Your task to perform on an android device: Do I have any events this weekend? Image 0: 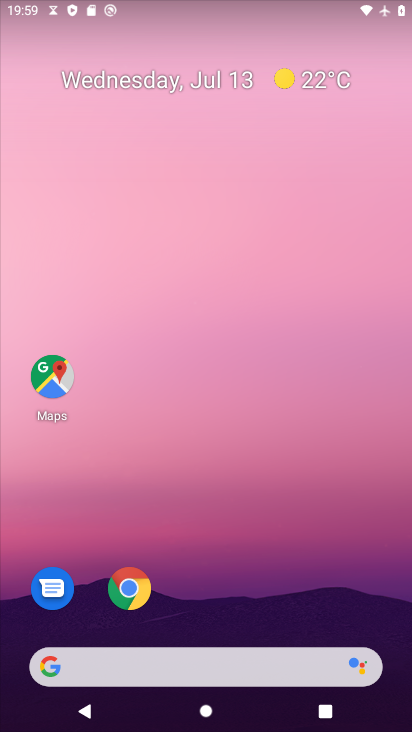
Step 0: drag from (235, 602) to (218, 83)
Your task to perform on an android device: Do I have any events this weekend? Image 1: 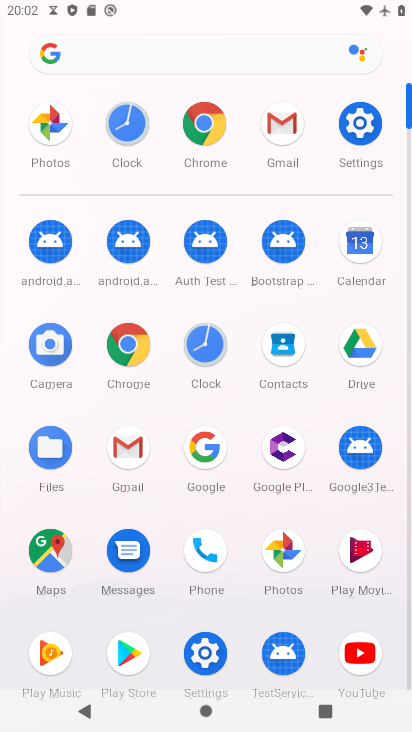
Step 1: click (375, 233)
Your task to perform on an android device: Do I have any events this weekend? Image 2: 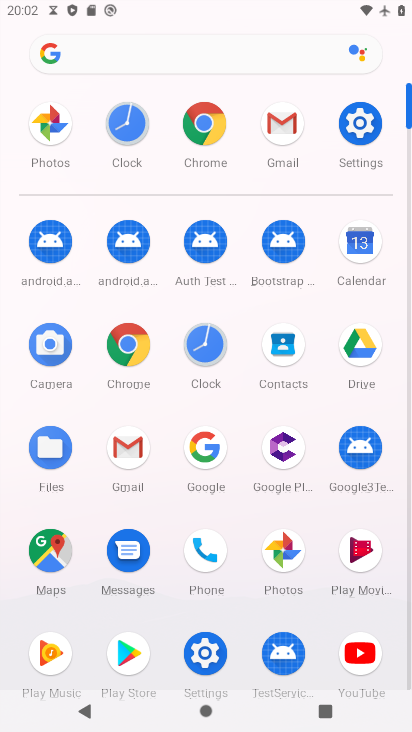
Step 2: click (354, 230)
Your task to perform on an android device: Do I have any events this weekend? Image 3: 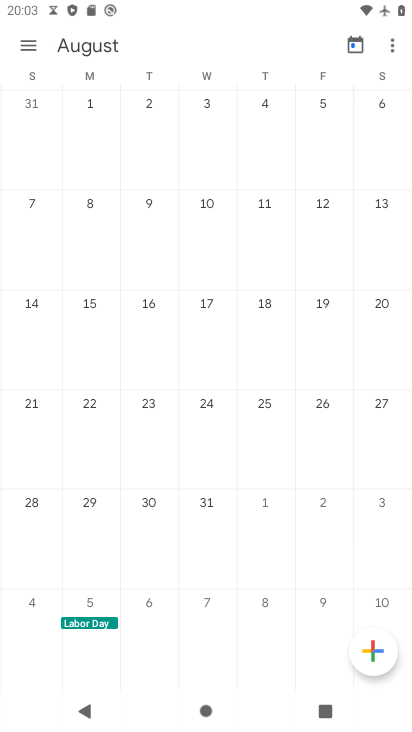
Step 3: drag from (41, 282) to (295, 315)
Your task to perform on an android device: Do I have any events this weekend? Image 4: 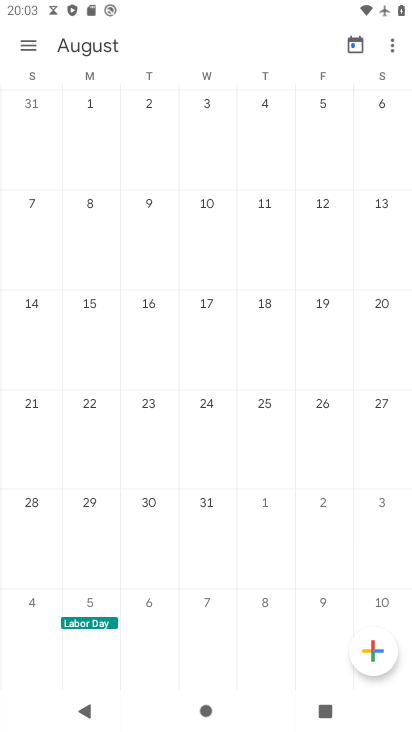
Step 4: drag from (7, 350) to (341, 464)
Your task to perform on an android device: Do I have any events this weekend? Image 5: 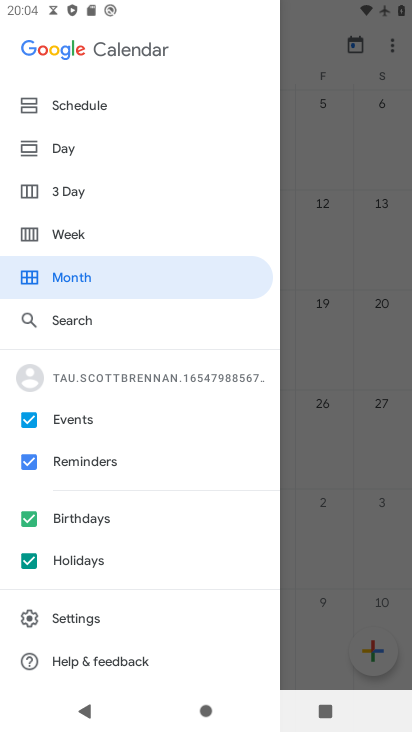
Step 5: click (318, 377)
Your task to perform on an android device: Do I have any events this weekend? Image 6: 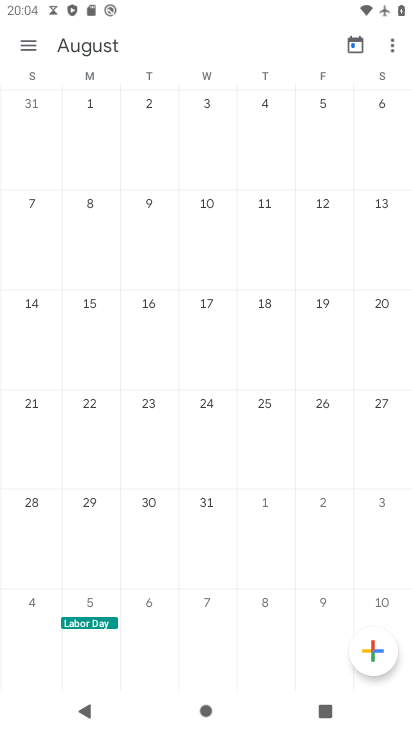
Step 6: drag from (96, 265) to (395, 170)
Your task to perform on an android device: Do I have any events this weekend? Image 7: 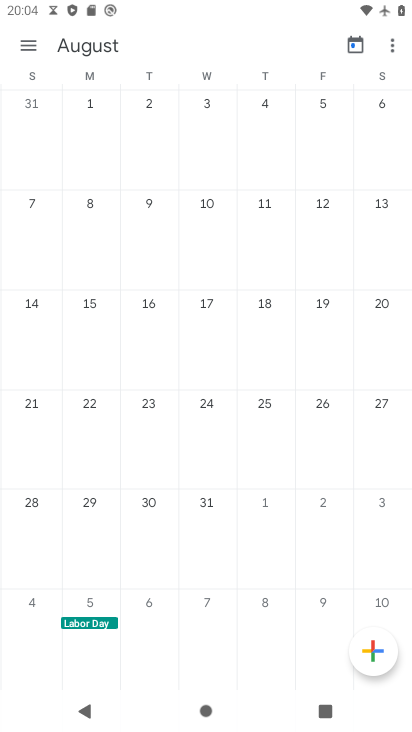
Step 7: drag from (56, 422) to (387, 712)
Your task to perform on an android device: Do I have any events this weekend? Image 8: 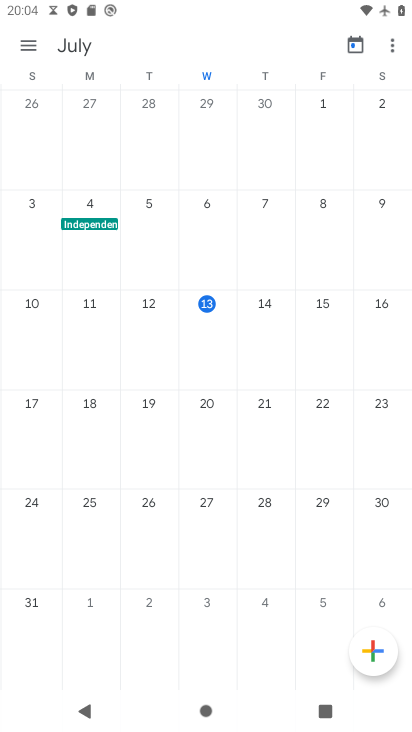
Step 8: click (33, 44)
Your task to perform on an android device: Do I have any events this weekend? Image 9: 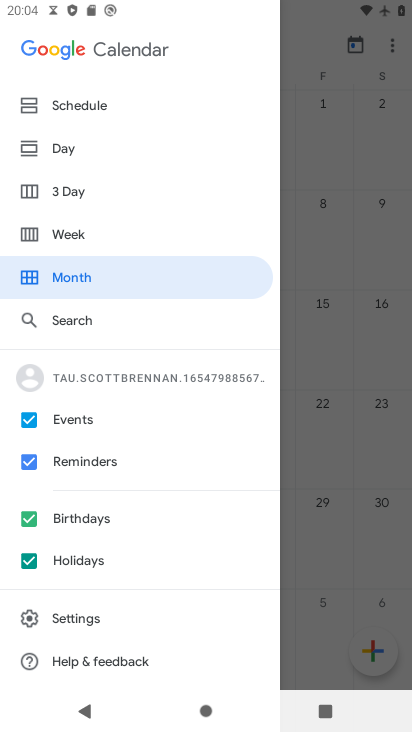
Step 9: click (87, 240)
Your task to perform on an android device: Do I have any events this weekend? Image 10: 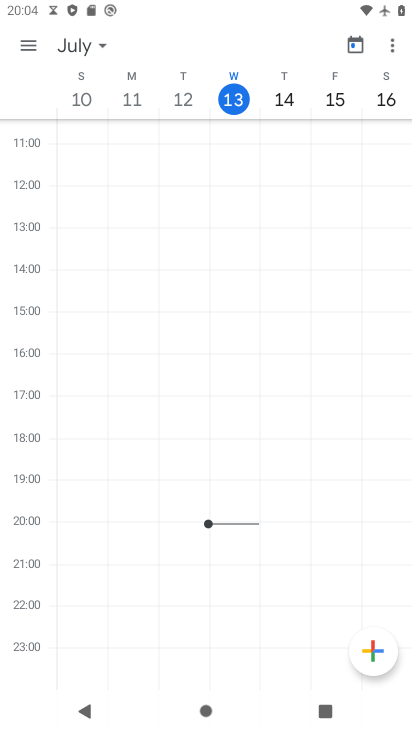
Step 10: task complete